Your task to perform on an android device: see creations saved in the google photos Image 0: 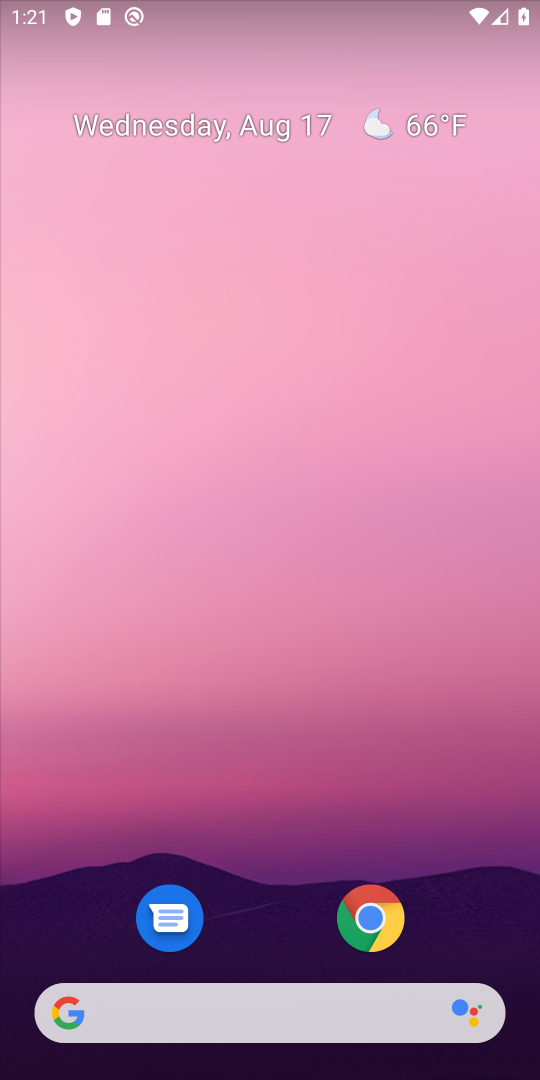
Step 0: drag from (262, 627) to (247, 238)
Your task to perform on an android device: see creations saved in the google photos Image 1: 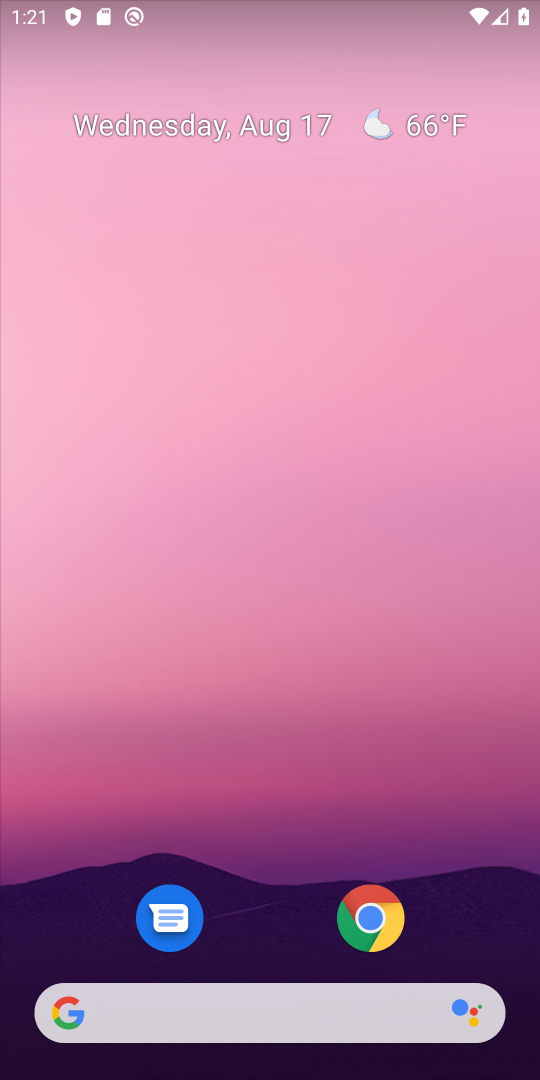
Step 1: drag from (277, 1001) to (255, 414)
Your task to perform on an android device: see creations saved in the google photos Image 2: 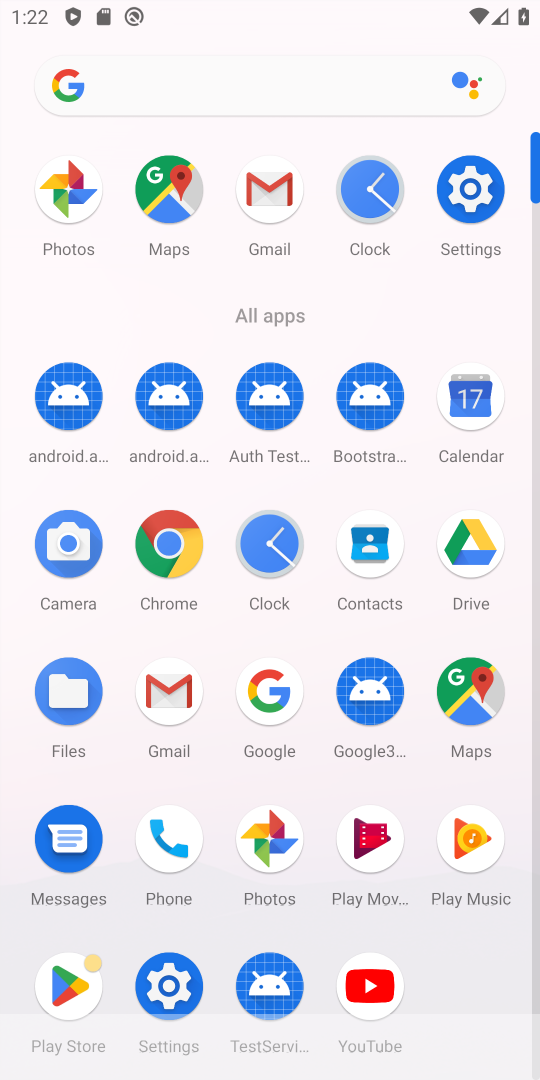
Step 2: click (252, 828)
Your task to perform on an android device: see creations saved in the google photos Image 3: 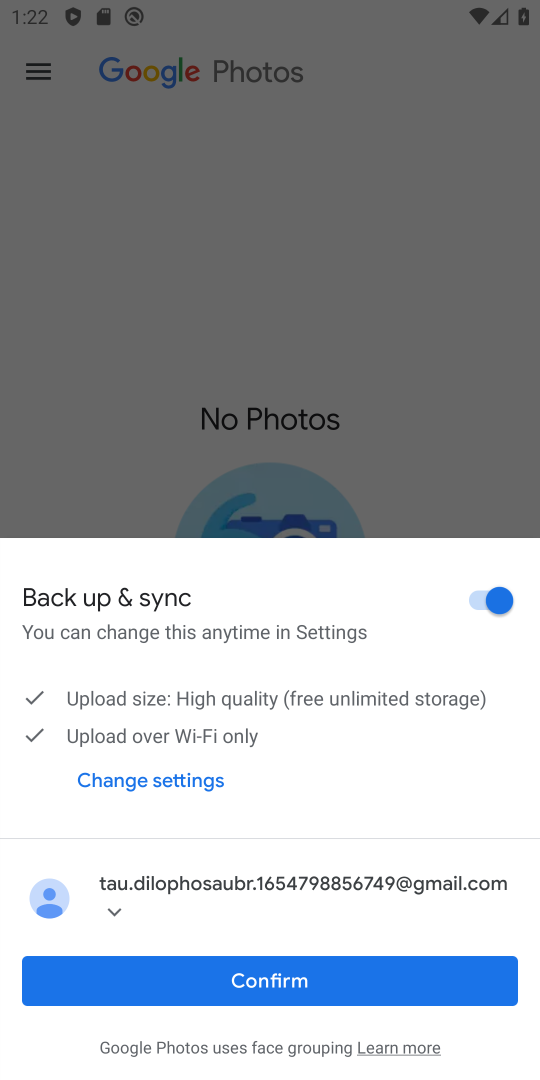
Step 3: click (279, 980)
Your task to perform on an android device: see creations saved in the google photos Image 4: 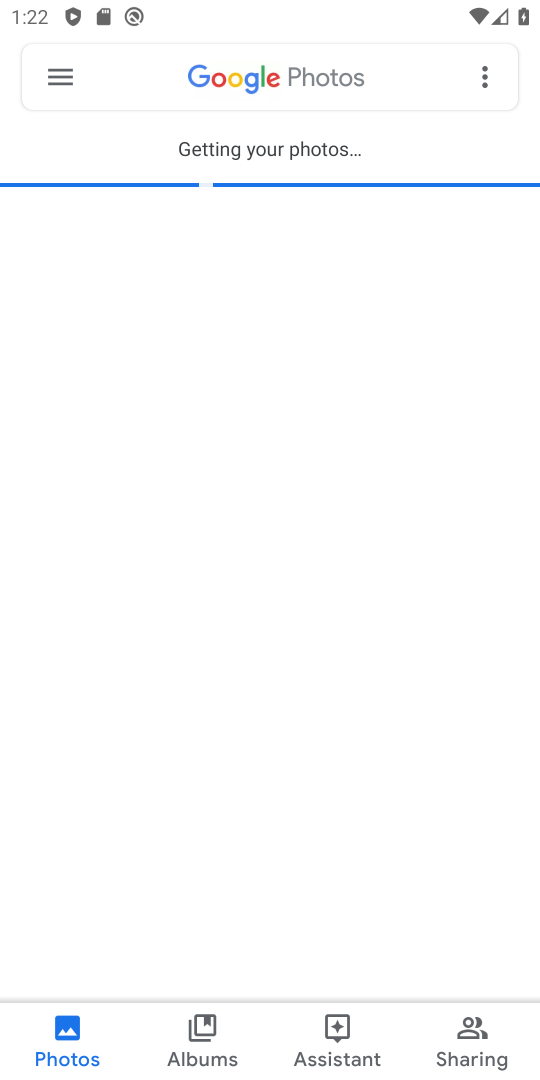
Step 4: click (36, 71)
Your task to perform on an android device: see creations saved in the google photos Image 5: 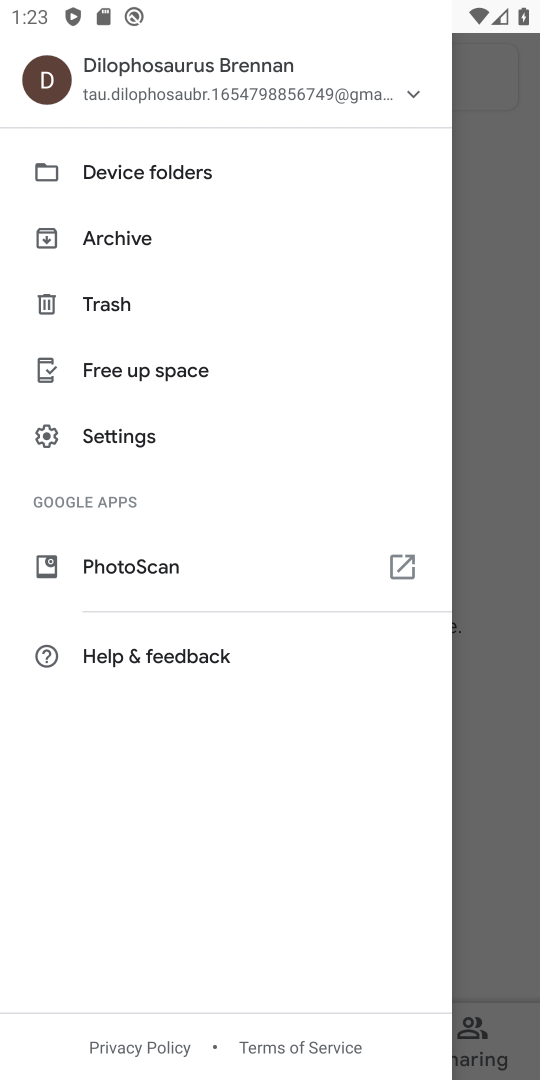
Step 5: click (514, 457)
Your task to perform on an android device: see creations saved in the google photos Image 6: 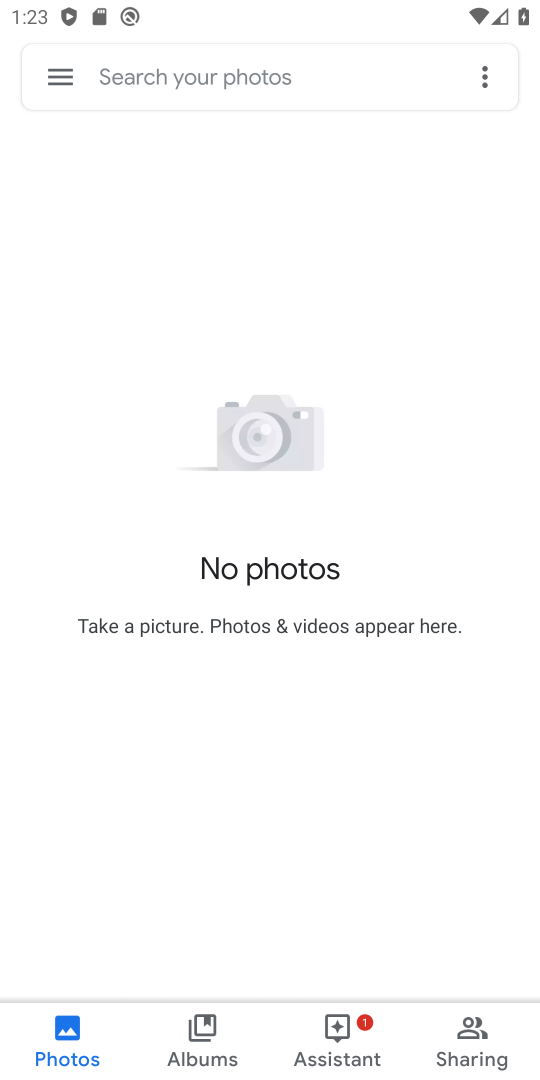
Step 6: click (297, 1034)
Your task to perform on an android device: see creations saved in the google photos Image 7: 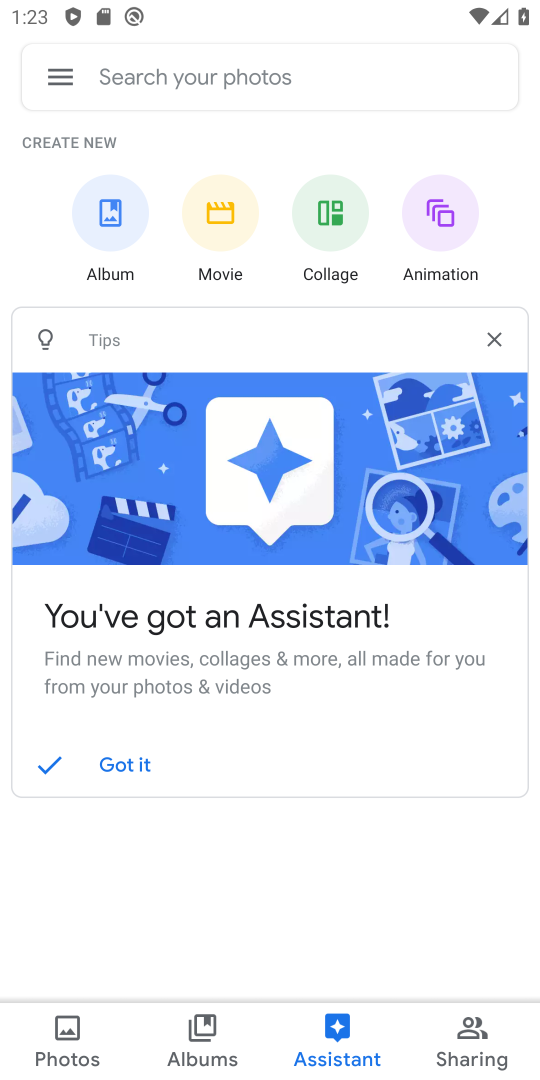
Step 7: task complete